Your task to perform on an android device: Open battery settings Image 0: 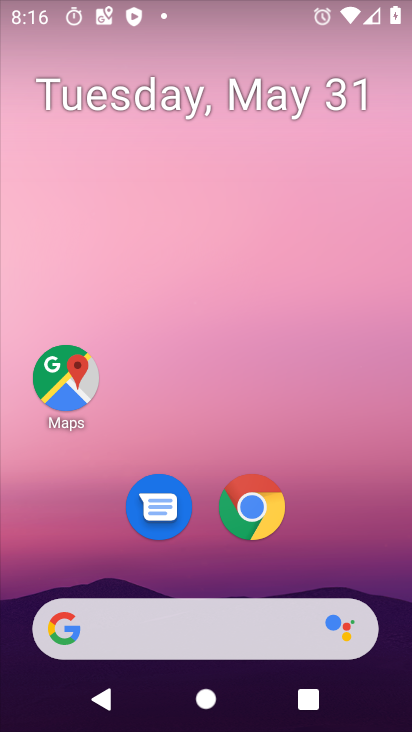
Step 0: drag from (348, 587) to (342, 1)
Your task to perform on an android device: Open battery settings Image 1: 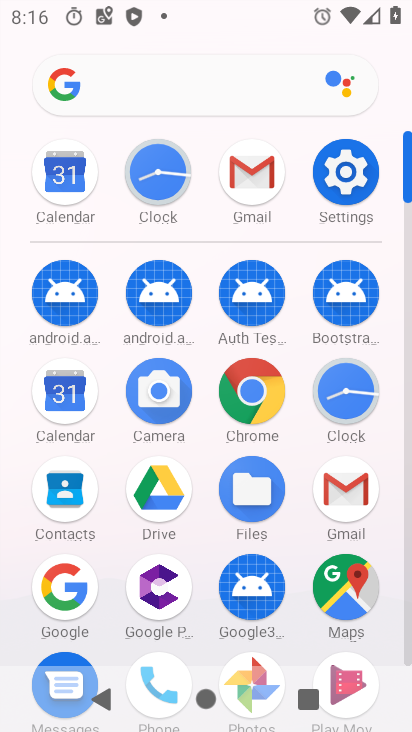
Step 1: click (344, 174)
Your task to perform on an android device: Open battery settings Image 2: 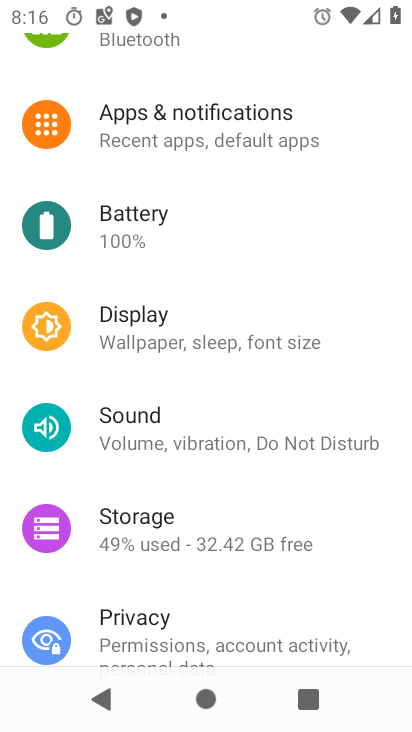
Step 2: click (125, 214)
Your task to perform on an android device: Open battery settings Image 3: 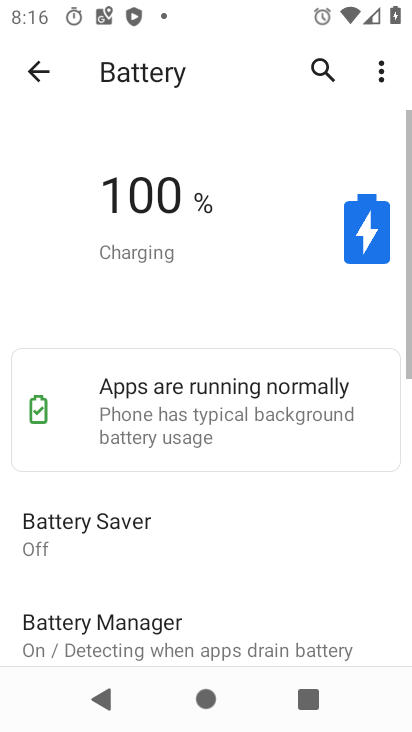
Step 3: task complete